Your task to perform on an android device: Search for the best rated phone case for the iPhone 8. Image 0: 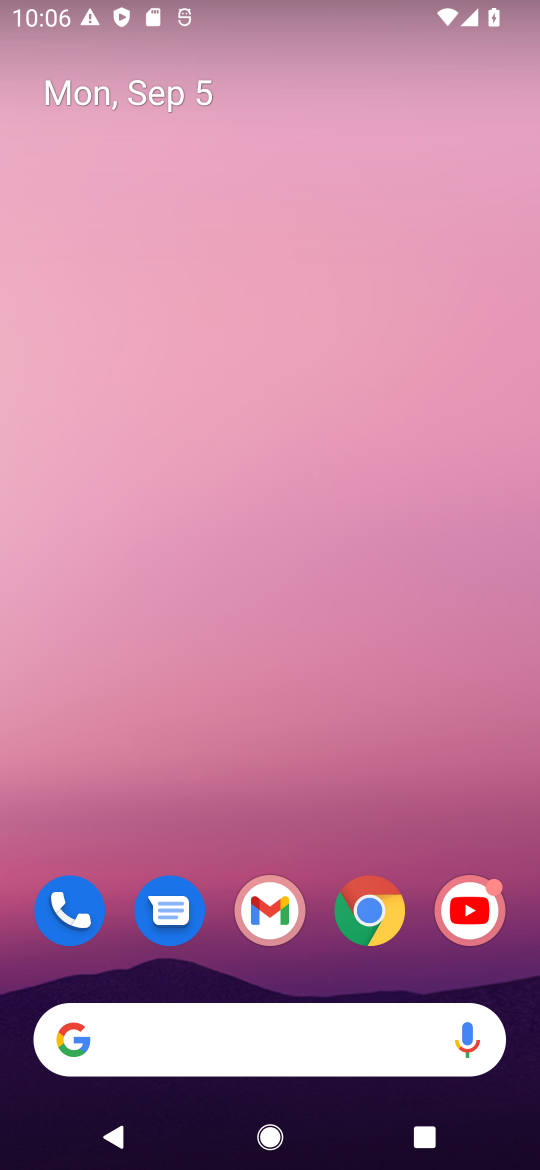
Step 0: click (347, 923)
Your task to perform on an android device: Search for the best rated phone case for the iPhone 8. Image 1: 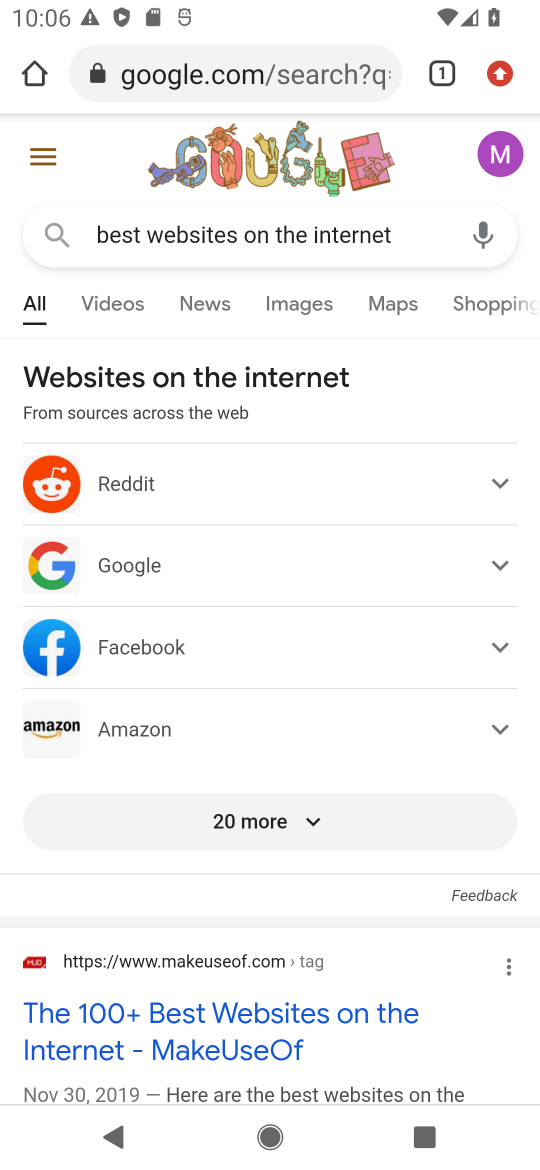
Step 1: click (303, 229)
Your task to perform on an android device: Search for the best rated phone case for the iPhone 8. Image 2: 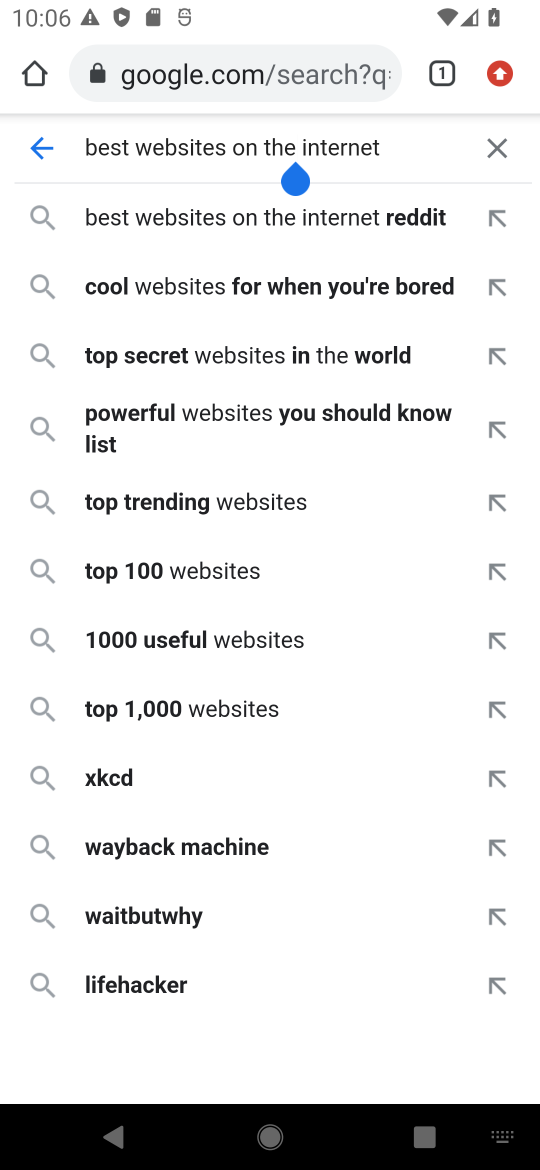
Step 2: click (501, 143)
Your task to perform on an android device: Search for the best rated phone case for the iPhone 8. Image 3: 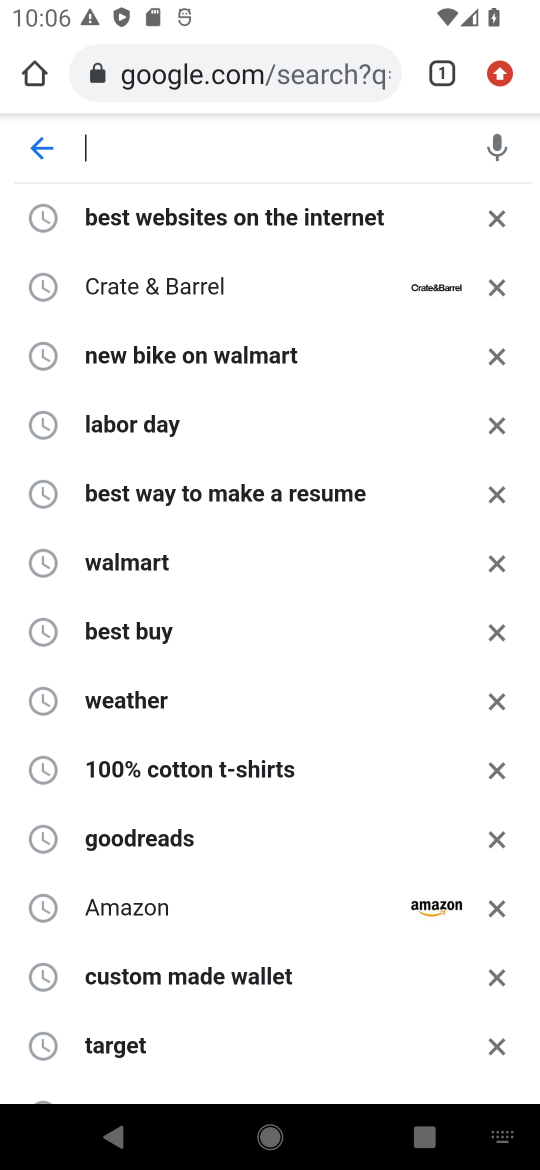
Step 3: type " best rated phone case for the iPhone 8"
Your task to perform on an android device: Search for the best rated phone case for the iPhone 8. Image 4: 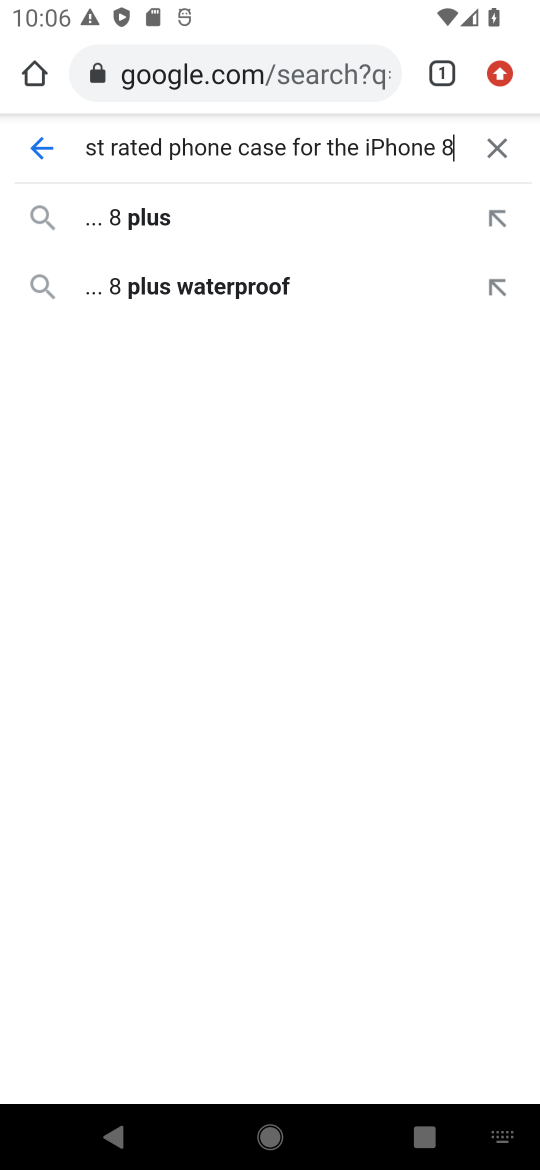
Step 4: click (308, 143)
Your task to perform on an android device: Search for the best rated phone case for the iPhone 8. Image 5: 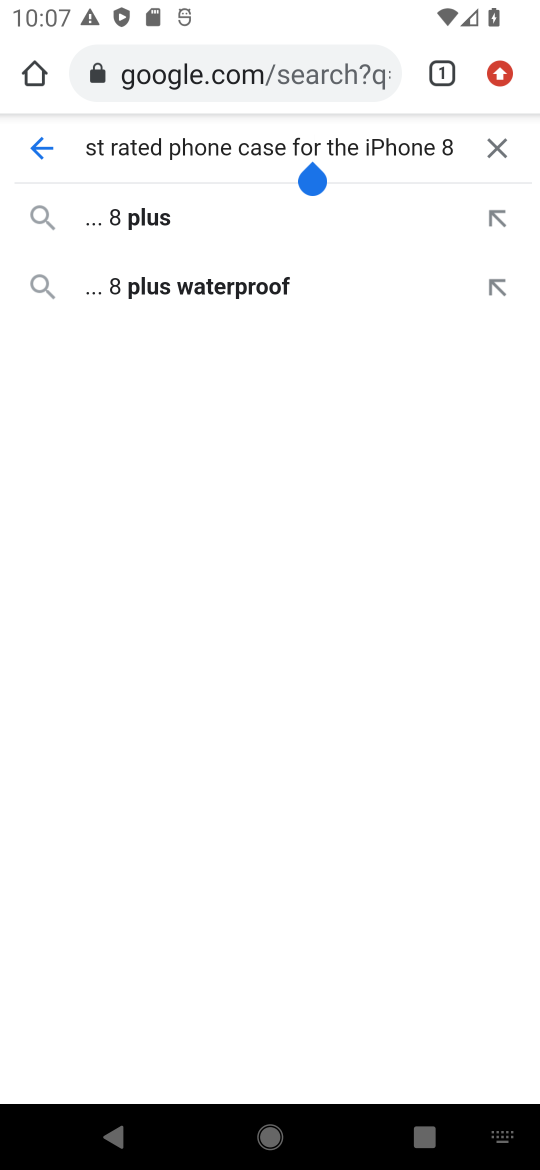
Step 5: press enter
Your task to perform on an android device: Search for the best rated phone case for the iPhone 8. Image 6: 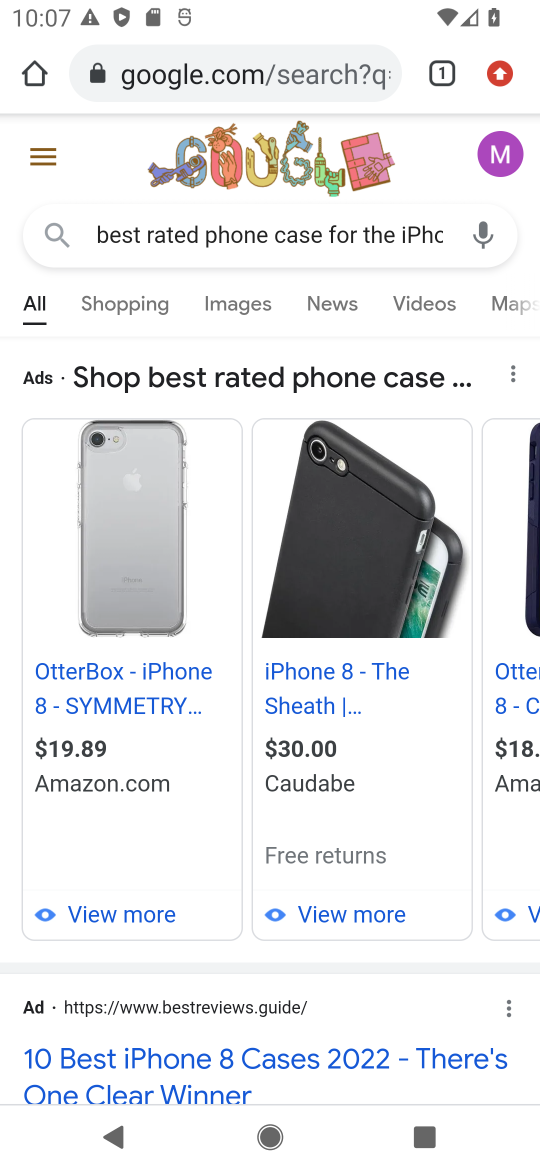
Step 6: task complete